Your task to perform on an android device: What's on my calendar tomorrow? Image 0: 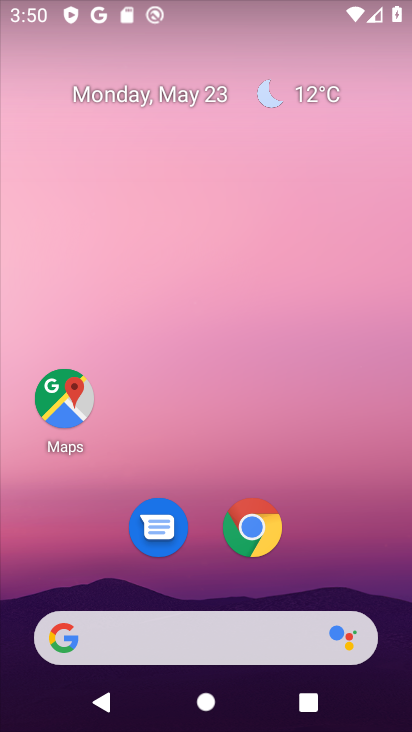
Step 0: press home button
Your task to perform on an android device: What's on my calendar tomorrow? Image 1: 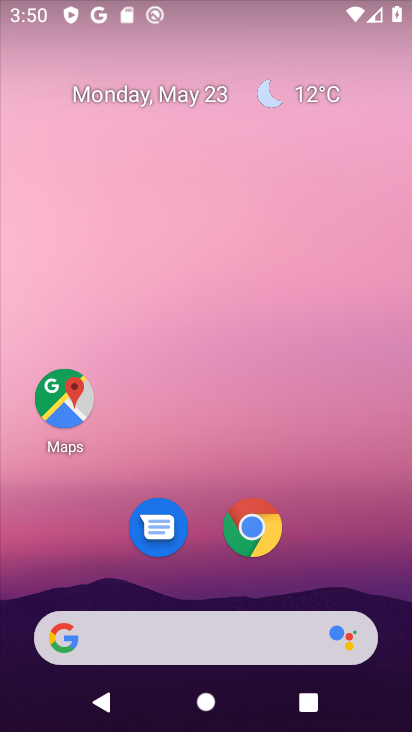
Step 1: drag from (221, 589) to (232, 37)
Your task to perform on an android device: What's on my calendar tomorrow? Image 2: 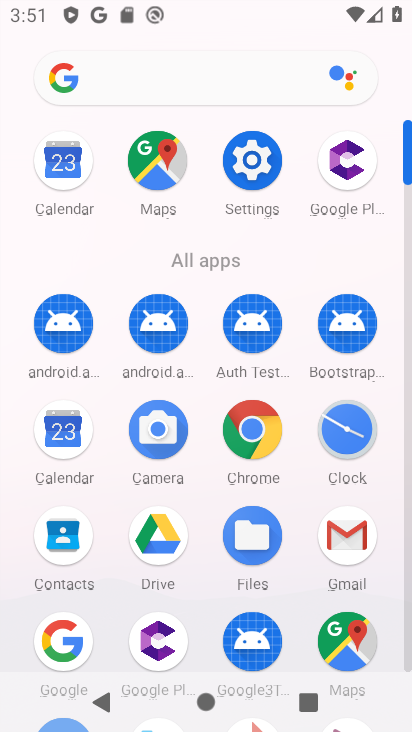
Step 2: click (61, 427)
Your task to perform on an android device: What's on my calendar tomorrow? Image 3: 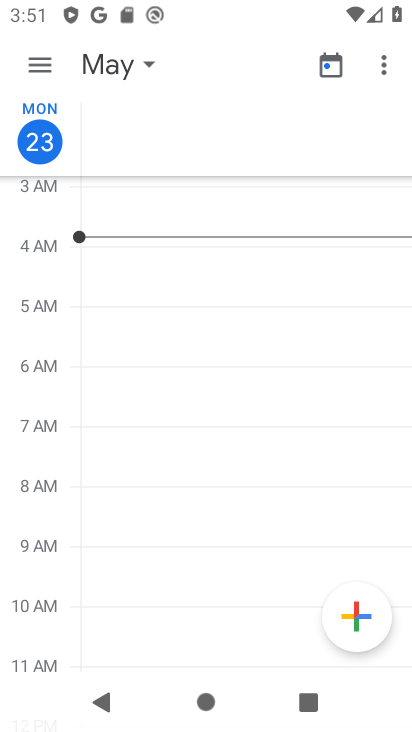
Step 3: click (62, 142)
Your task to perform on an android device: What's on my calendar tomorrow? Image 4: 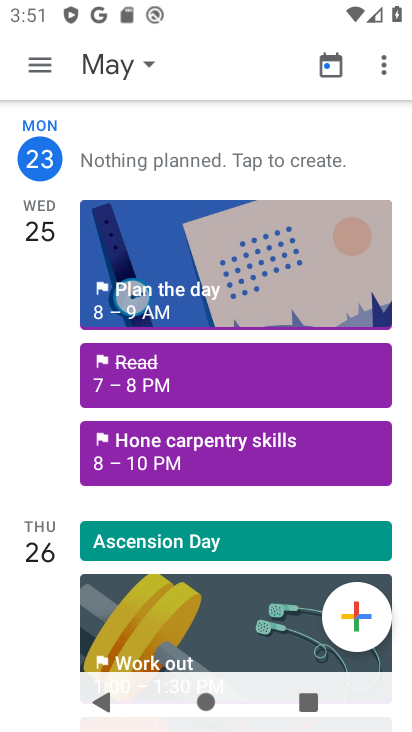
Step 4: click (143, 68)
Your task to perform on an android device: What's on my calendar tomorrow? Image 5: 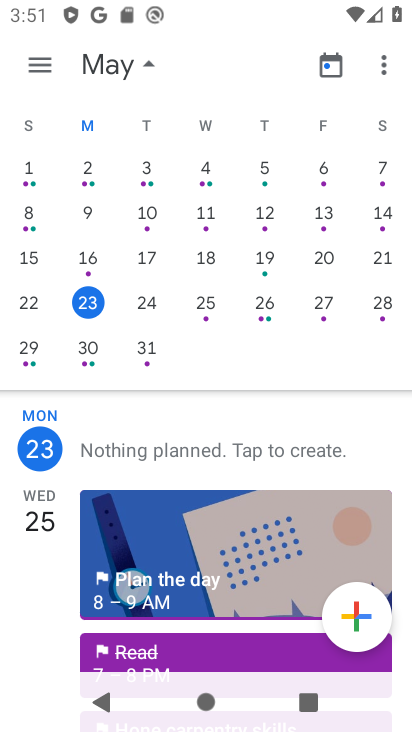
Step 5: click (146, 301)
Your task to perform on an android device: What's on my calendar tomorrow? Image 6: 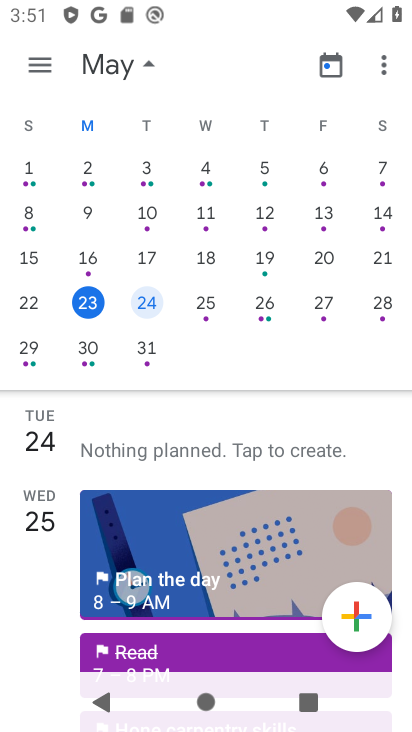
Step 6: click (145, 58)
Your task to perform on an android device: What's on my calendar tomorrow? Image 7: 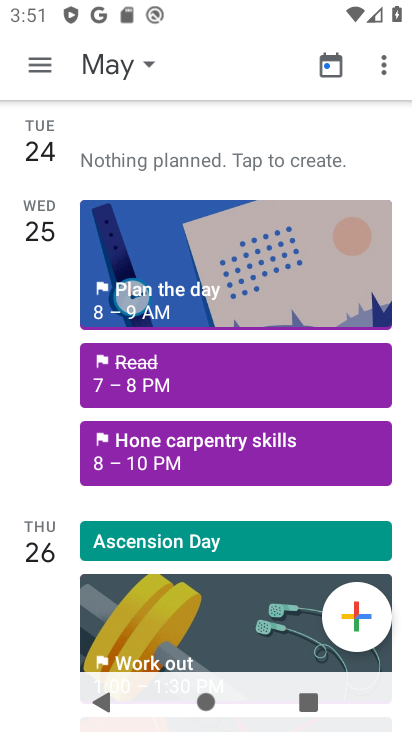
Step 7: click (46, 167)
Your task to perform on an android device: What's on my calendar tomorrow? Image 8: 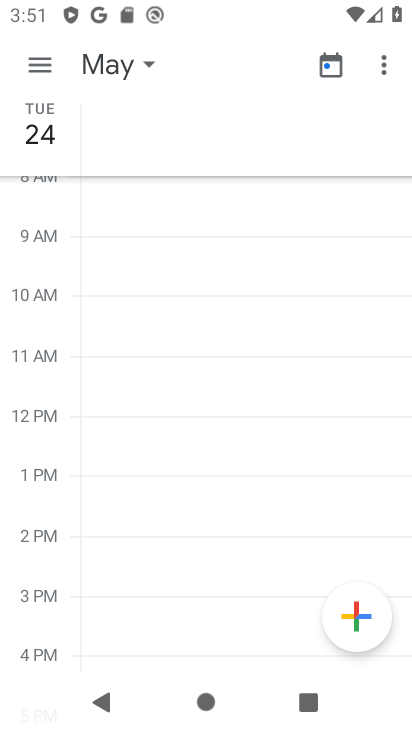
Step 8: task complete